Your task to perform on an android device: Open Google Chrome and click the shortcut for Amazon.com Image 0: 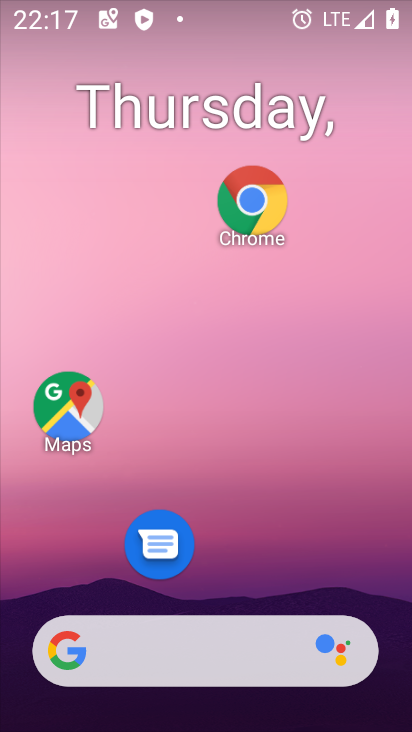
Step 0: click (250, 205)
Your task to perform on an android device: Open Google Chrome and click the shortcut for Amazon.com Image 1: 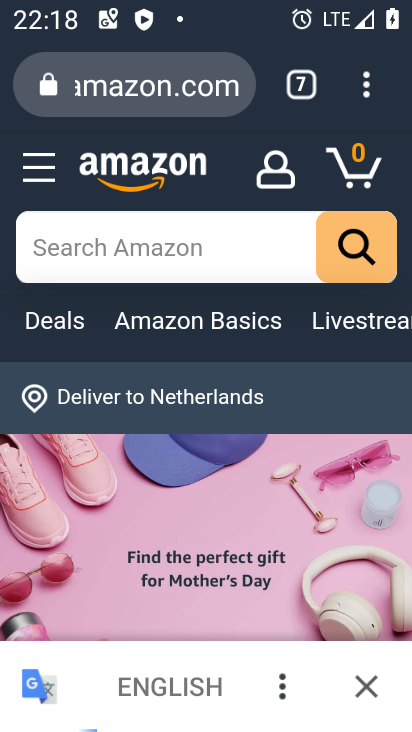
Step 1: task complete